Your task to perform on an android device: Go to Android settings Image 0: 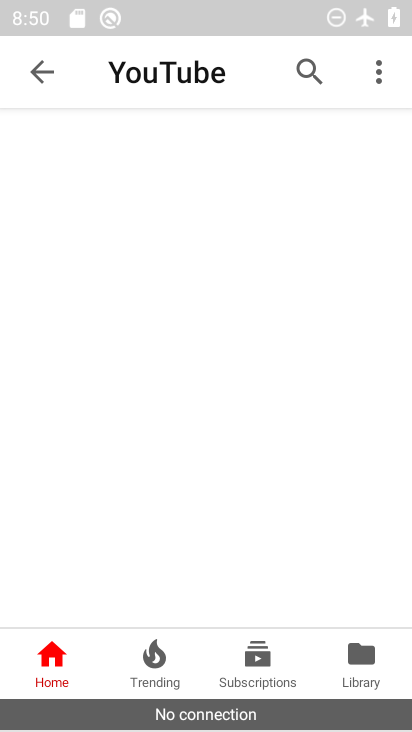
Step 0: drag from (239, 676) to (156, 169)
Your task to perform on an android device: Go to Android settings Image 1: 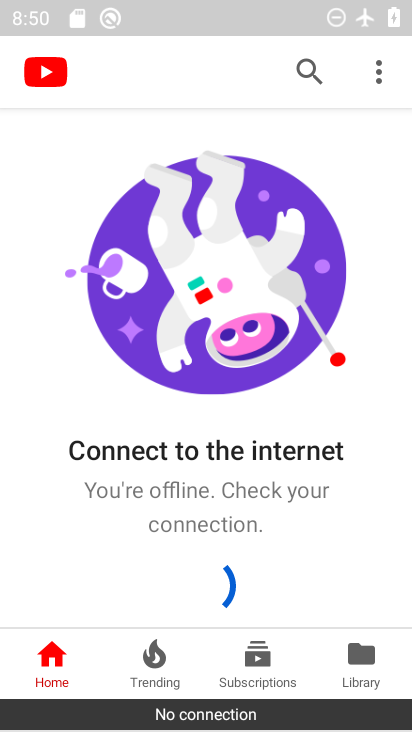
Step 1: click (43, 70)
Your task to perform on an android device: Go to Android settings Image 2: 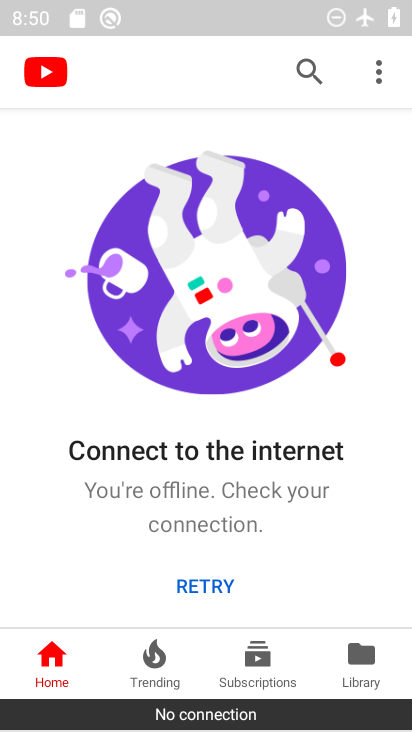
Step 2: press back button
Your task to perform on an android device: Go to Android settings Image 3: 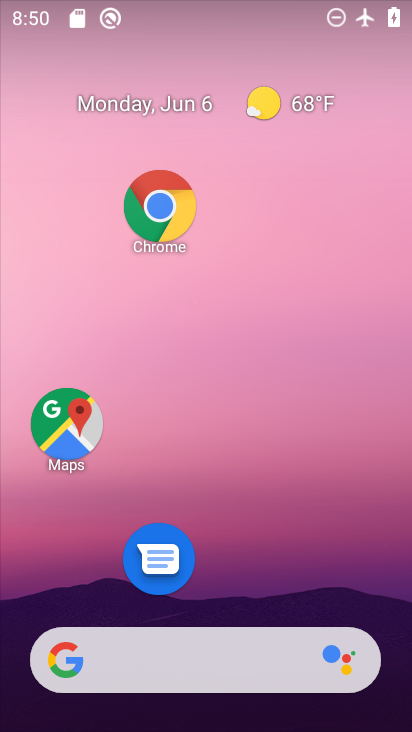
Step 3: drag from (245, 592) to (180, 216)
Your task to perform on an android device: Go to Android settings Image 4: 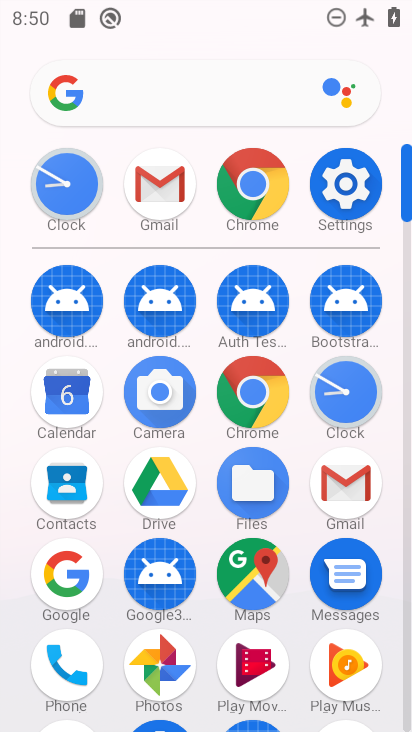
Step 4: click (363, 188)
Your task to perform on an android device: Go to Android settings Image 5: 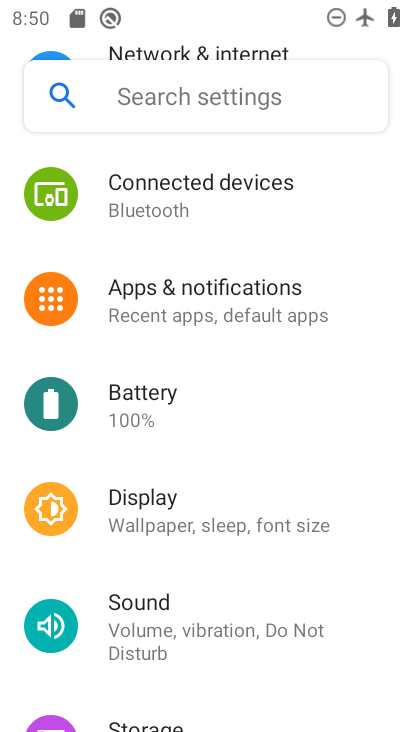
Step 5: drag from (205, 564) to (161, 140)
Your task to perform on an android device: Go to Android settings Image 6: 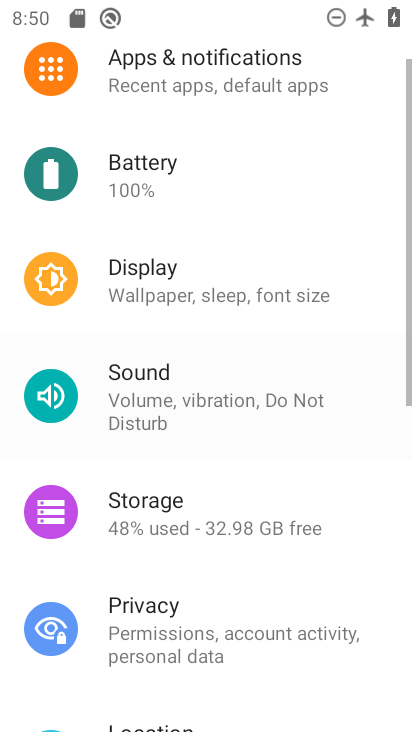
Step 6: drag from (201, 532) to (170, 315)
Your task to perform on an android device: Go to Android settings Image 7: 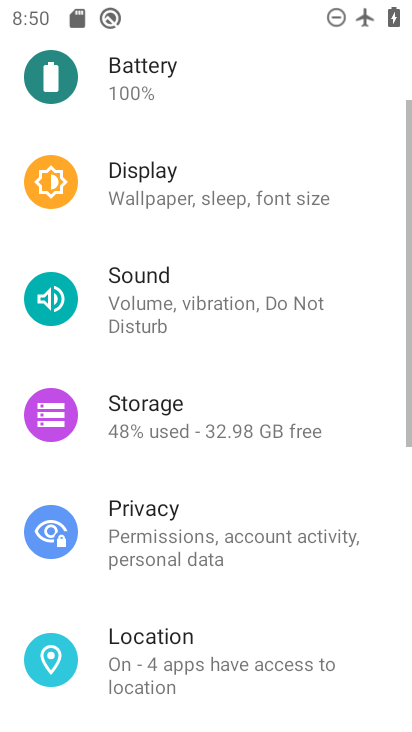
Step 7: drag from (197, 543) to (169, 187)
Your task to perform on an android device: Go to Android settings Image 8: 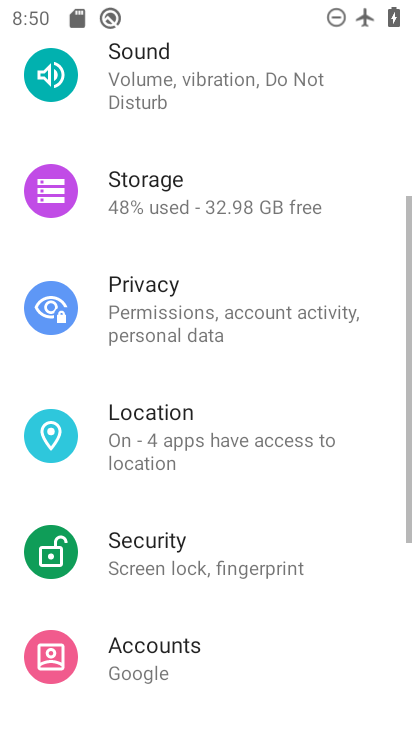
Step 8: drag from (178, 588) to (175, 258)
Your task to perform on an android device: Go to Android settings Image 9: 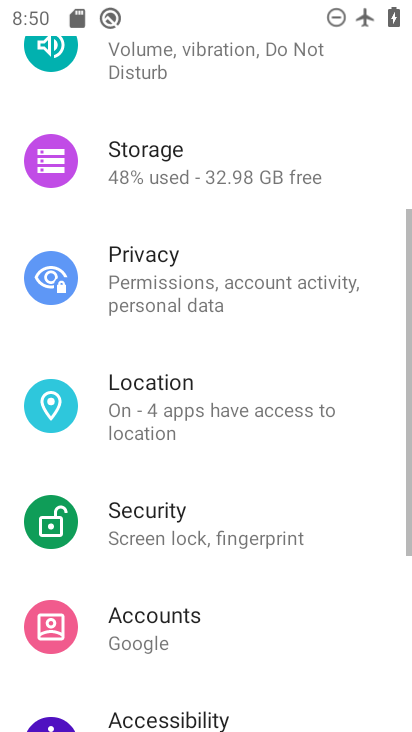
Step 9: drag from (210, 616) to (162, 280)
Your task to perform on an android device: Go to Android settings Image 10: 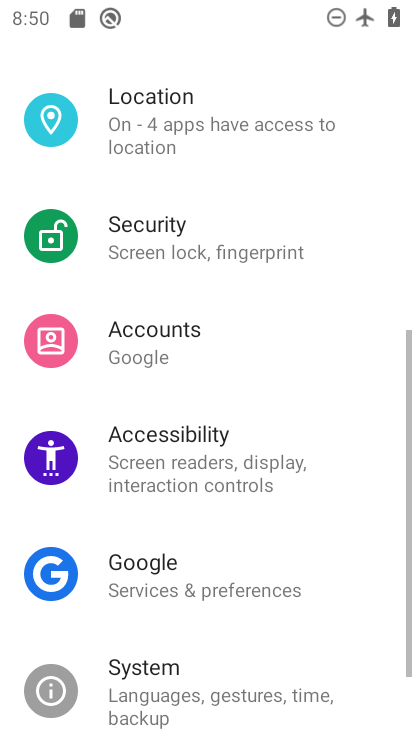
Step 10: drag from (169, 567) to (146, 273)
Your task to perform on an android device: Go to Android settings Image 11: 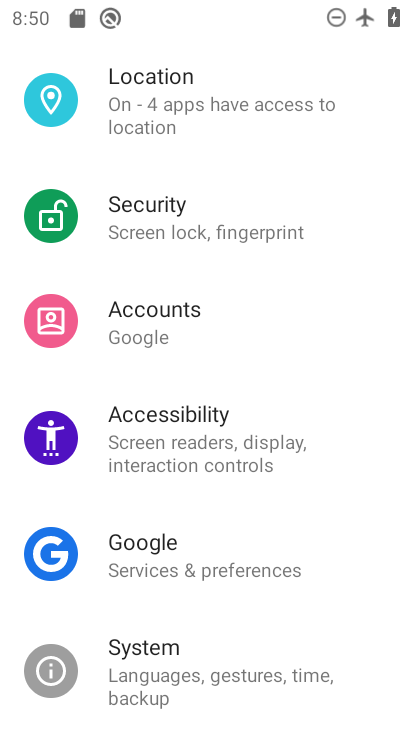
Step 11: drag from (181, 544) to (132, 192)
Your task to perform on an android device: Go to Android settings Image 12: 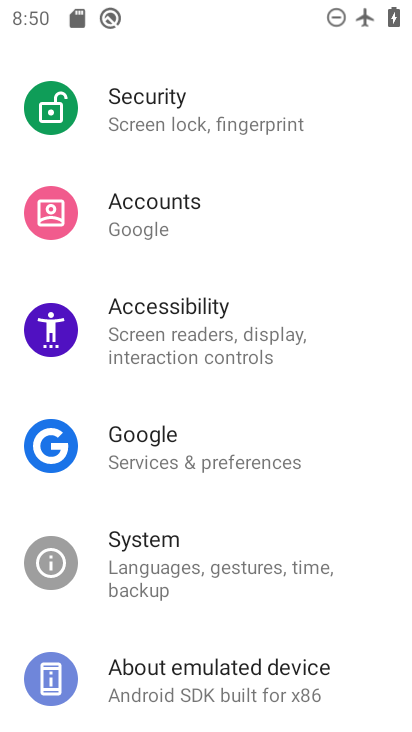
Step 12: click (199, 677)
Your task to perform on an android device: Go to Android settings Image 13: 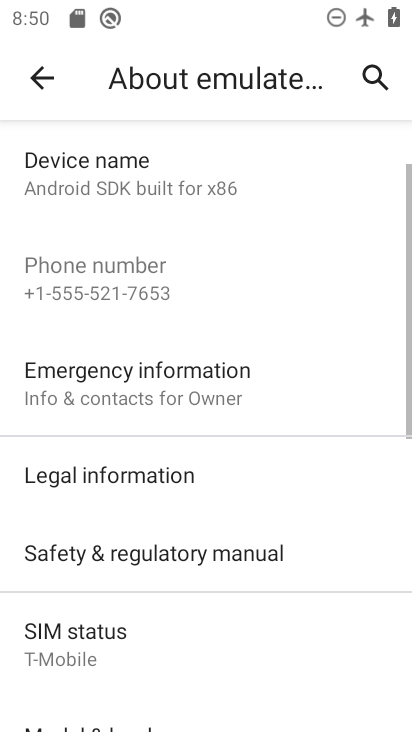
Step 13: task complete